Your task to perform on an android device: toggle javascript in the chrome app Image 0: 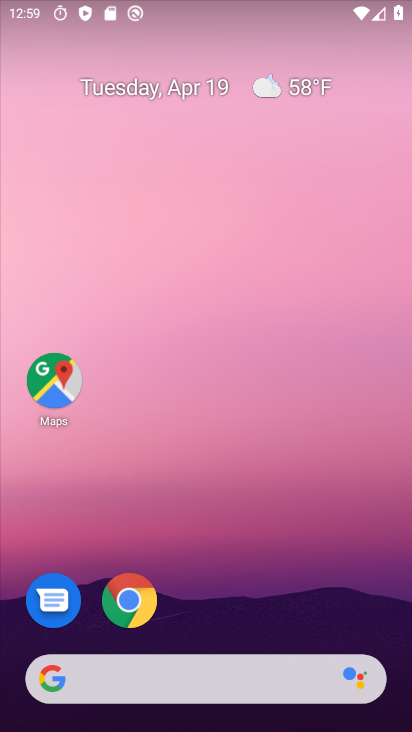
Step 0: drag from (161, 691) to (257, 225)
Your task to perform on an android device: toggle javascript in the chrome app Image 1: 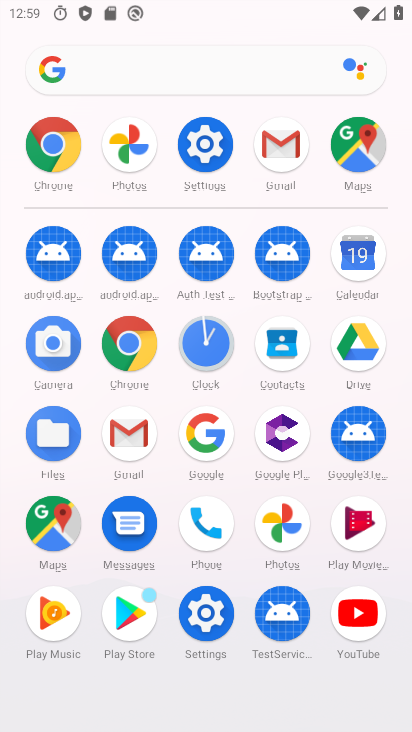
Step 1: click (69, 149)
Your task to perform on an android device: toggle javascript in the chrome app Image 2: 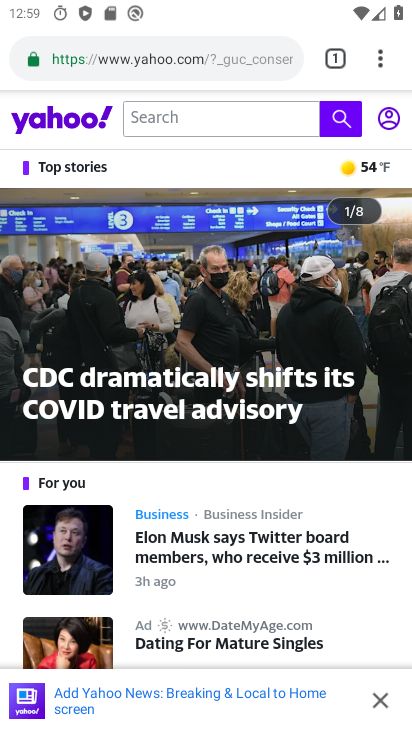
Step 2: click (378, 57)
Your task to perform on an android device: toggle javascript in the chrome app Image 3: 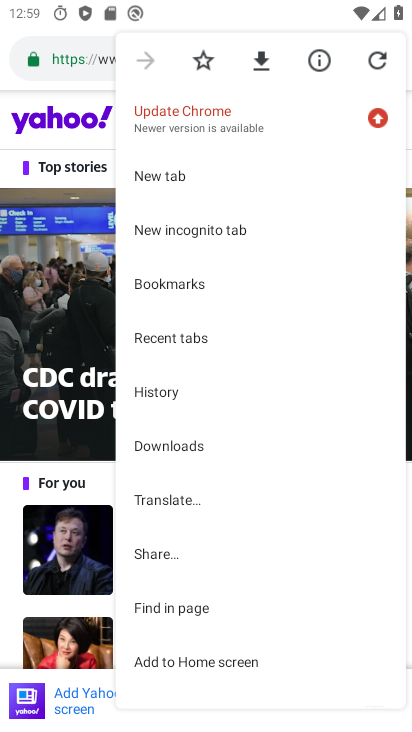
Step 3: drag from (200, 678) to (212, 587)
Your task to perform on an android device: toggle javascript in the chrome app Image 4: 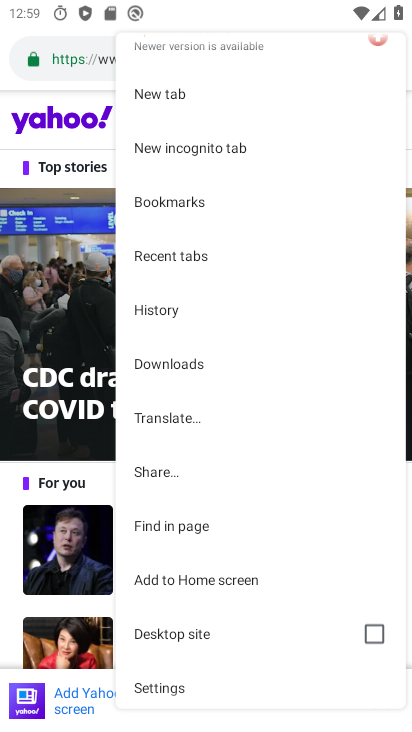
Step 4: click (170, 680)
Your task to perform on an android device: toggle javascript in the chrome app Image 5: 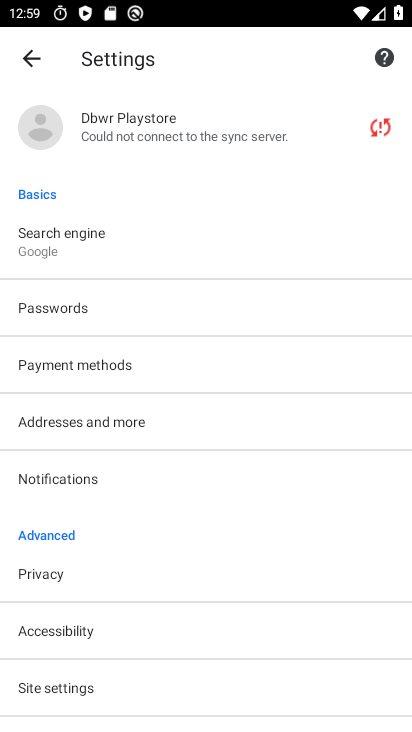
Step 5: click (77, 682)
Your task to perform on an android device: toggle javascript in the chrome app Image 6: 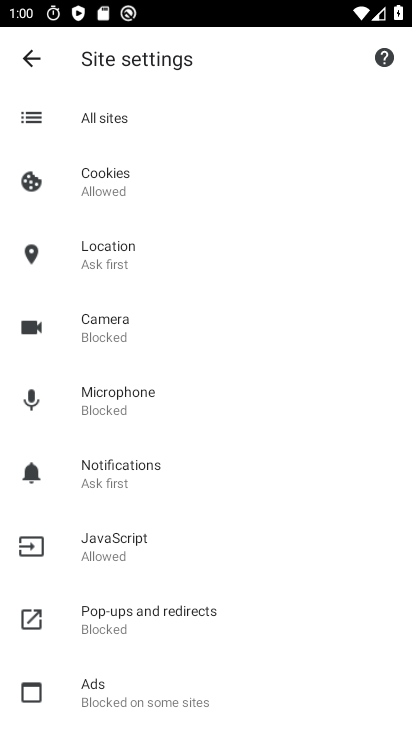
Step 6: click (155, 545)
Your task to perform on an android device: toggle javascript in the chrome app Image 7: 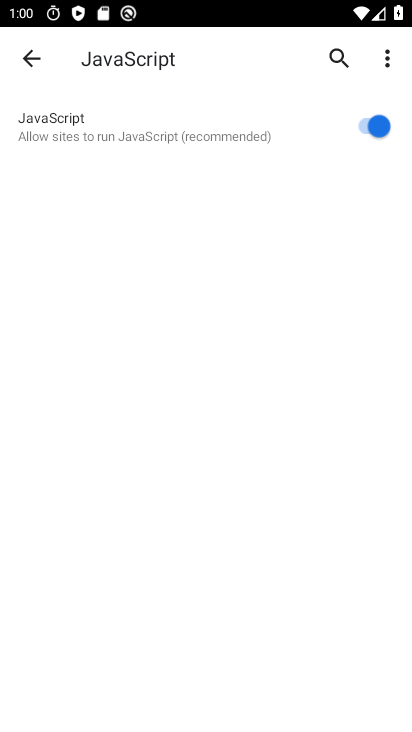
Step 7: task complete